Your task to perform on an android device: empty trash in google photos Image 0: 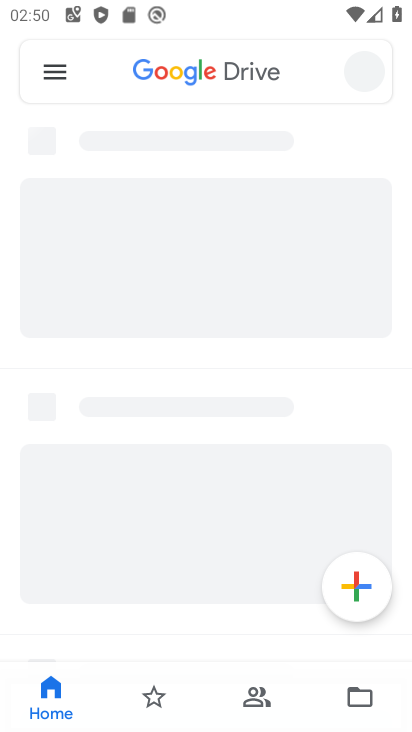
Step 0: press home button
Your task to perform on an android device: empty trash in google photos Image 1: 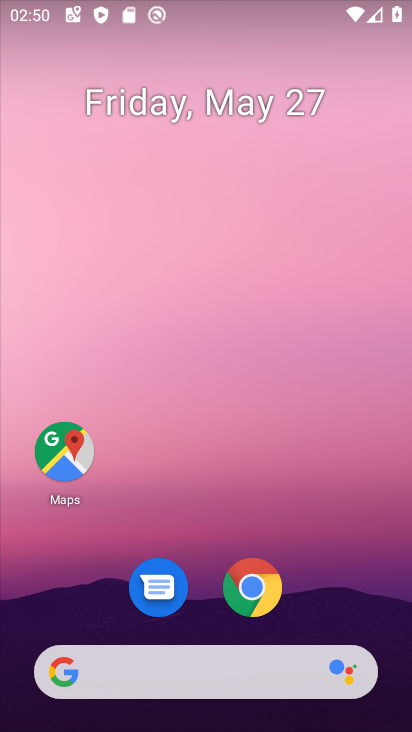
Step 1: drag from (345, 610) to (337, 206)
Your task to perform on an android device: empty trash in google photos Image 2: 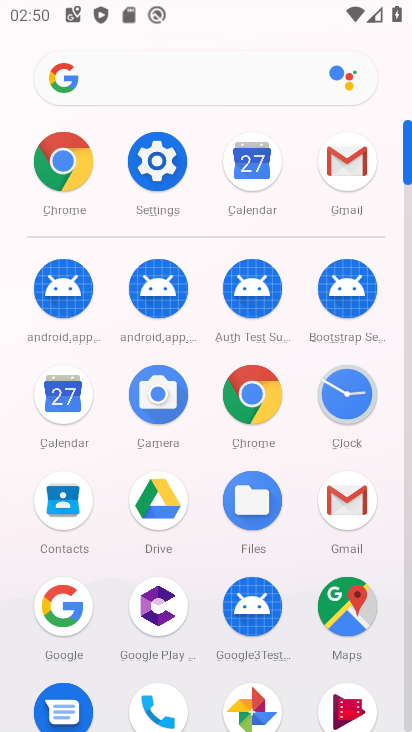
Step 2: click (240, 716)
Your task to perform on an android device: empty trash in google photos Image 3: 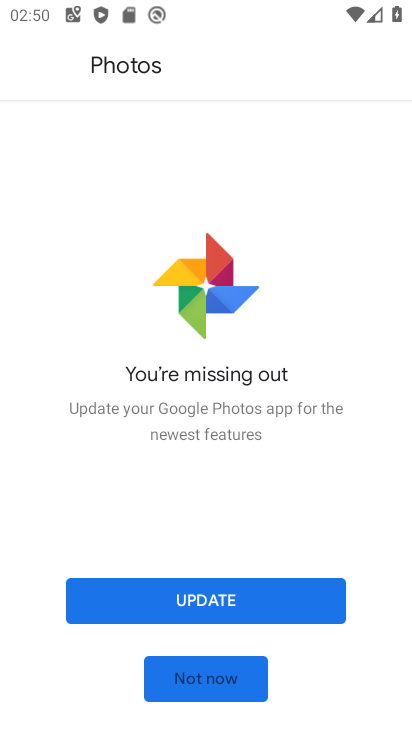
Step 3: click (237, 676)
Your task to perform on an android device: empty trash in google photos Image 4: 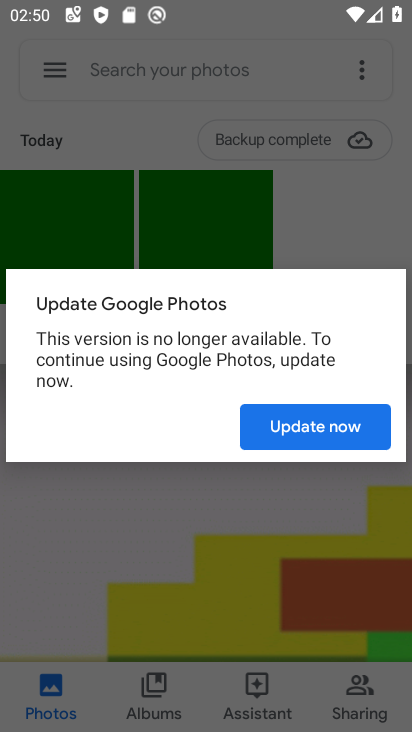
Step 4: click (299, 434)
Your task to perform on an android device: empty trash in google photos Image 5: 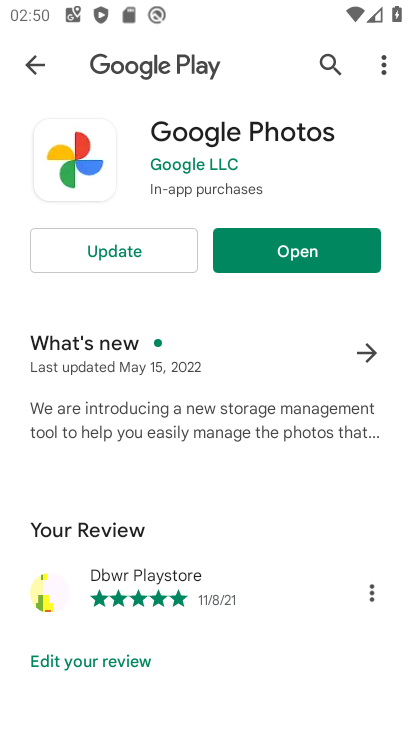
Step 5: click (148, 257)
Your task to perform on an android device: empty trash in google photos Image 6: 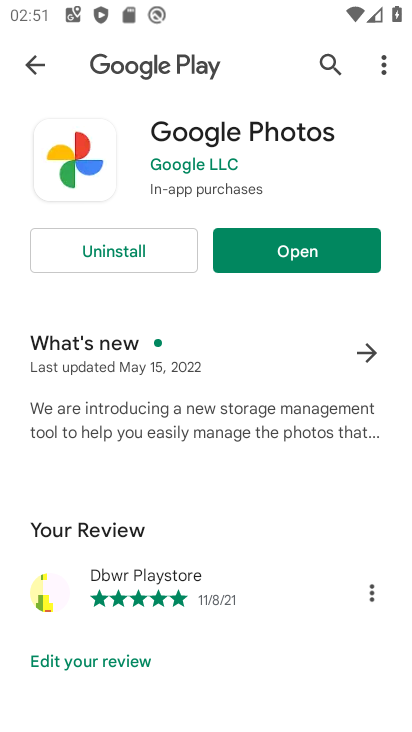
Step 6: click (283, 255)
Your task to perform on an android device: empty trash in google photos Image 7: 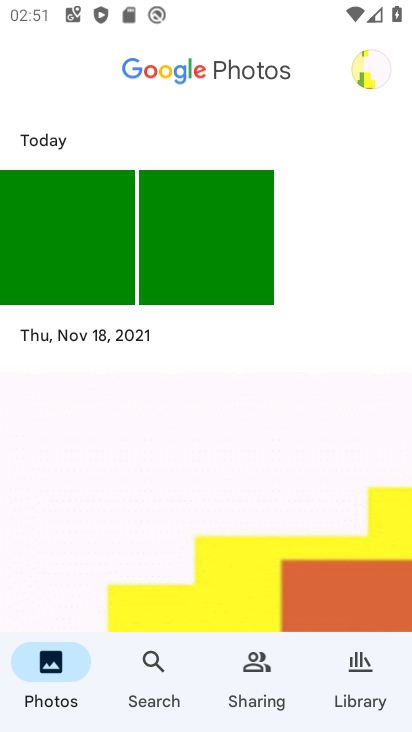
Step 7: click (361, 686)
Your task to perform on an android device: empty trash in google photos Image 8: 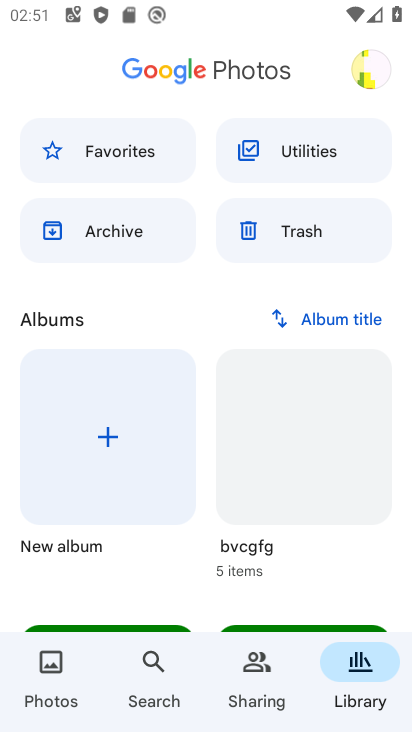
Step 8: click (259, 224)
Your task to perform on an android device: empty trash in google photos Image 9: 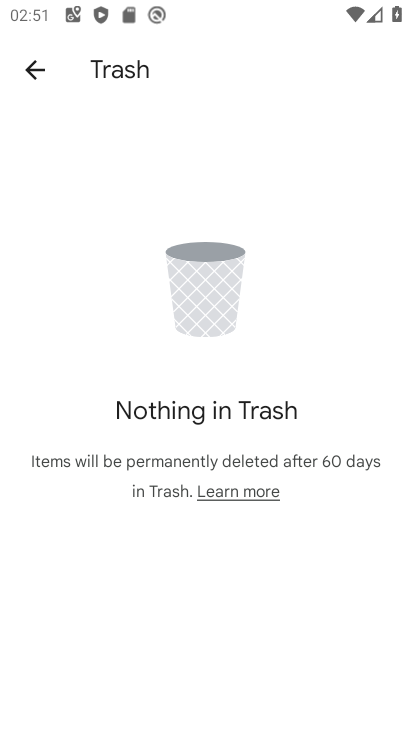
Step 9: task complete